Your task to perform on an android device: open a bookmark in the chrome app Image 0: 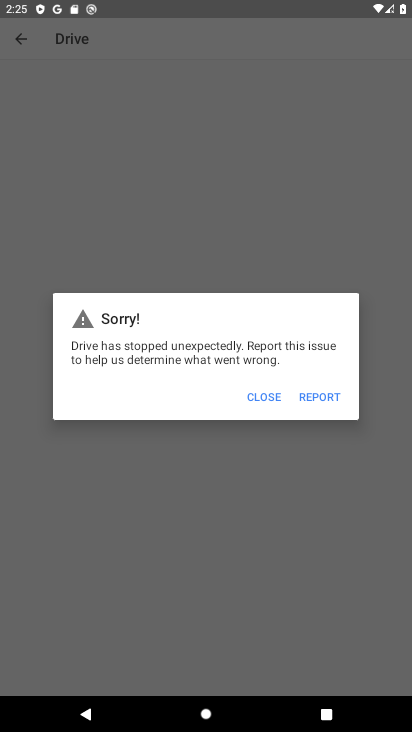
Step 0: press home button
Your task to perform on an android device: open a bookmark in the chrome app Image 1: 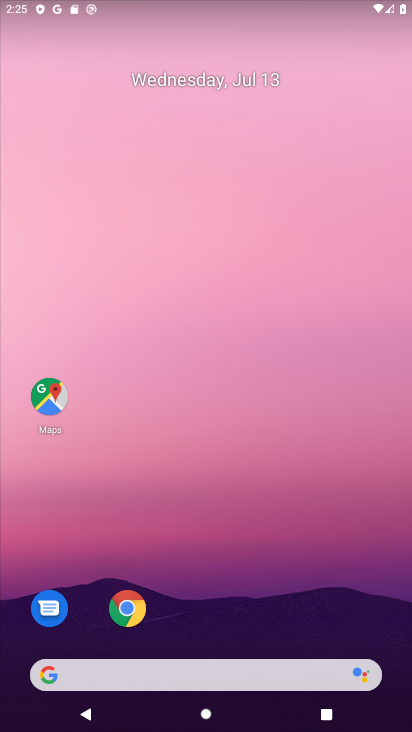
Step 1: click (135, 612)
Your task to perform on an android device: open a bookmark in the chrome app Image 2: 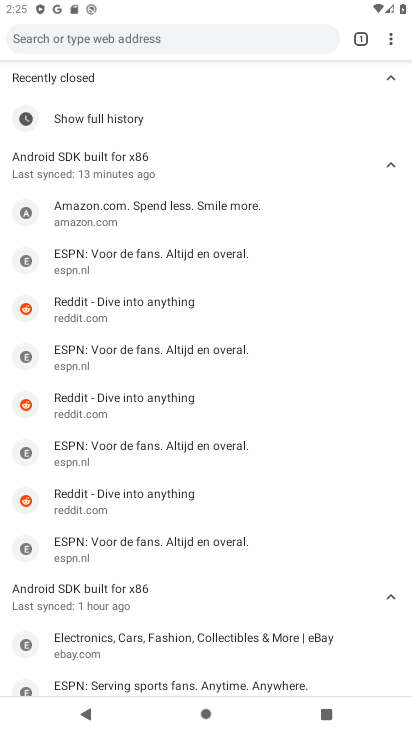
Step 2: click (399, 47)
Your task to perform on an android device: open a bookmark in the chrome app Image 3: 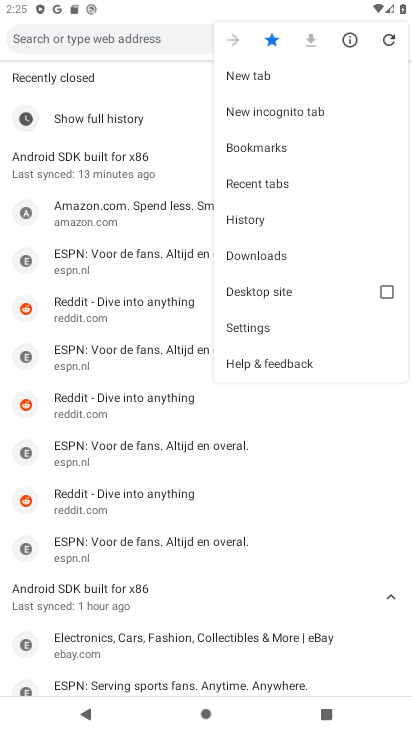
Step 3: click (276, 136)
Your task to perform on an android device: open a bookmark in the chrome app Image 4: 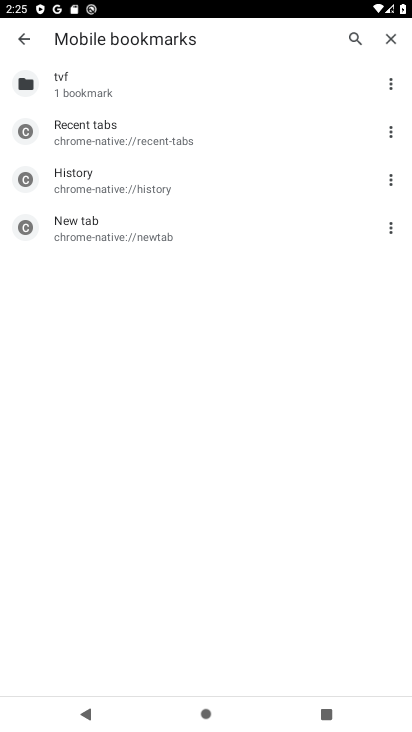
Step 4: click (91, 87)
Your task to perform on an android device: open a bookmark in the chrome app Image 5: 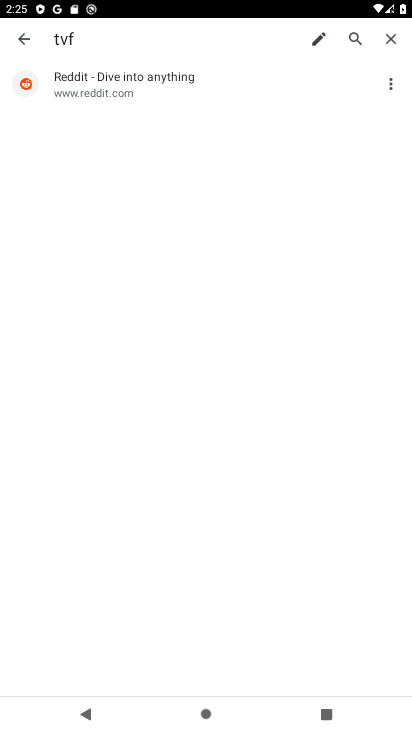
Step 5: click (91, 87)
Your task to perform on an android device: open a bookmark in the chrome app Image 6: 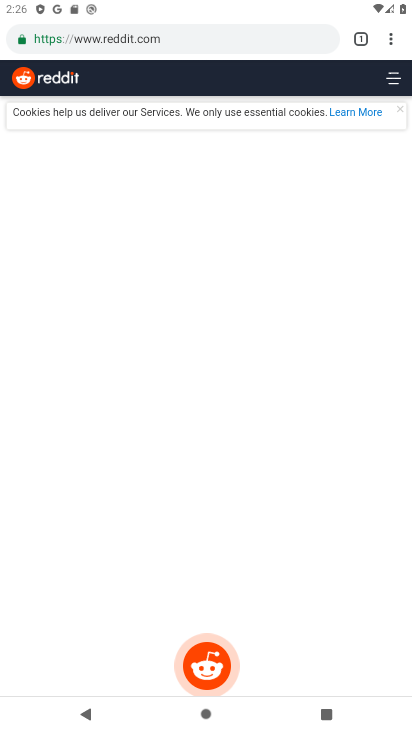
Step 6: task complete